Your task to perform on an android device: open wifi settings Image 0: 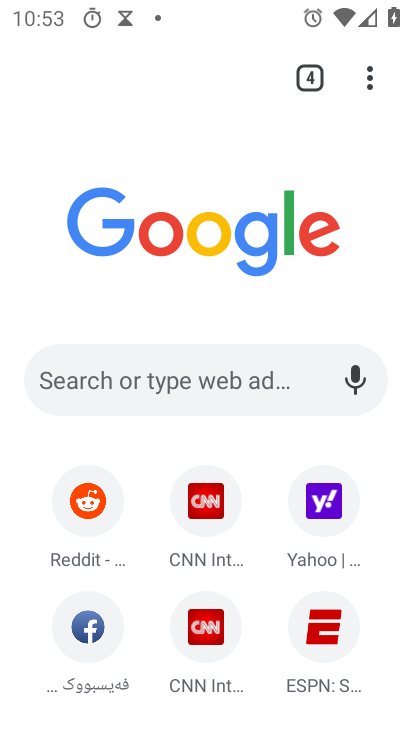
Step 0: press home button
Your task to perform on an android device: open wifi settings Image 1: 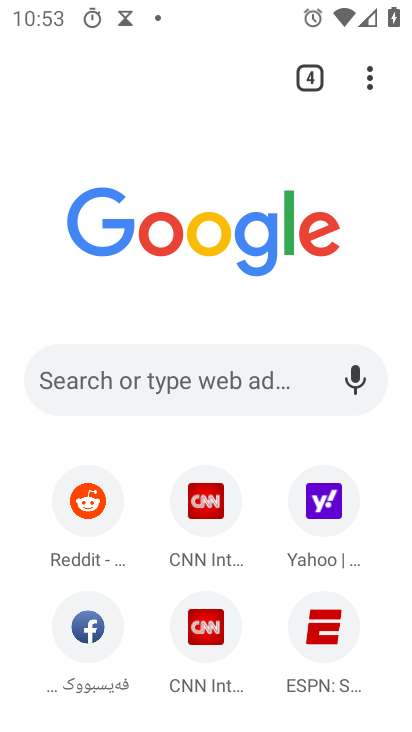
Step 1: press home button
Your task to perform on an android device: open wifi settings Image 2: 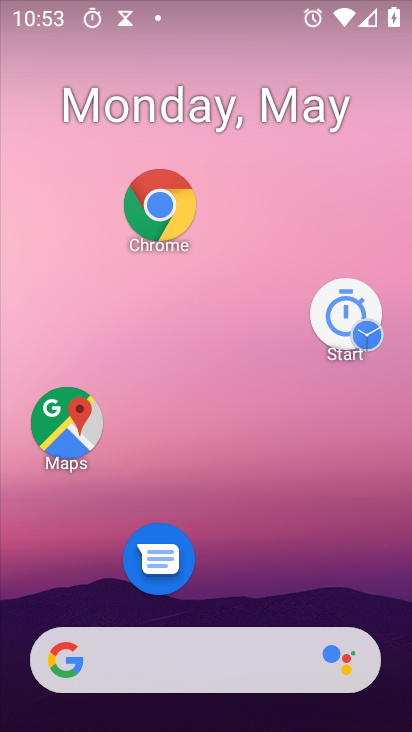
Step 2: press home button
Your task to perform on an android device: open wifi settings Image 3: 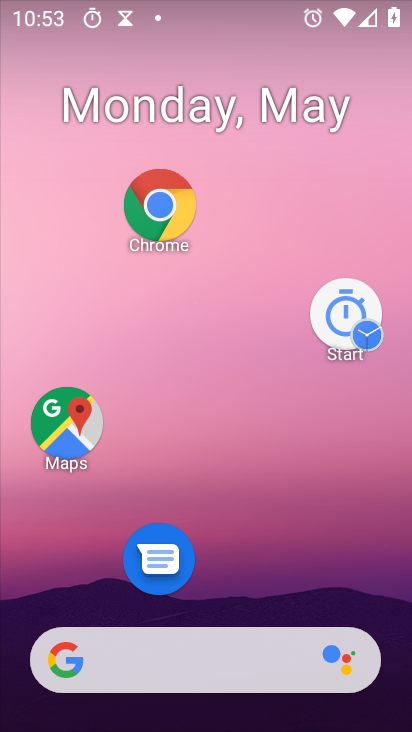
Step 3: drag from (244, 697) to (143, 123)
Your task to perform on an android device: open wifi settings Image 4: 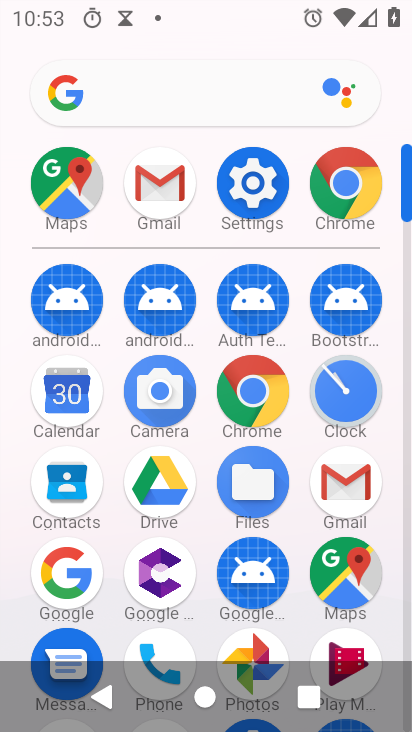
Step 4: click (263, 180)
Your task to perform on an android device: open wifi settings Image 5: 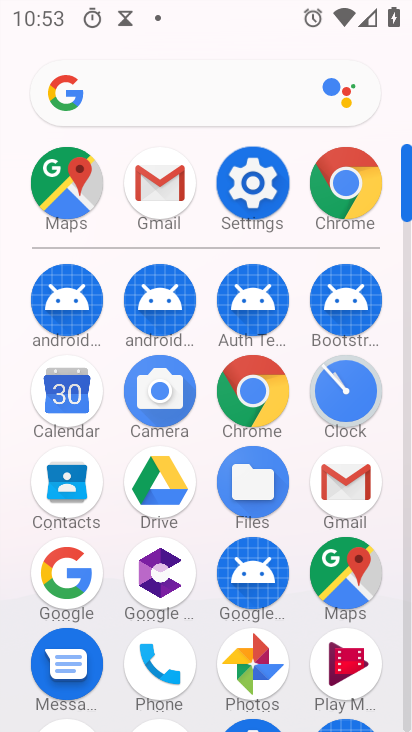
Step 5: click (263, 180)
Your task to perform on an android device: open wifi settings Image 6: 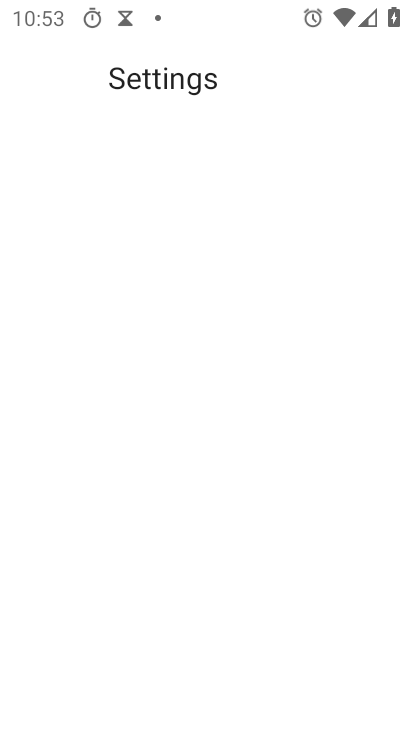
Step 6: click (262, 179)
Your task to perform on an android device: open wifi settings Image 7: 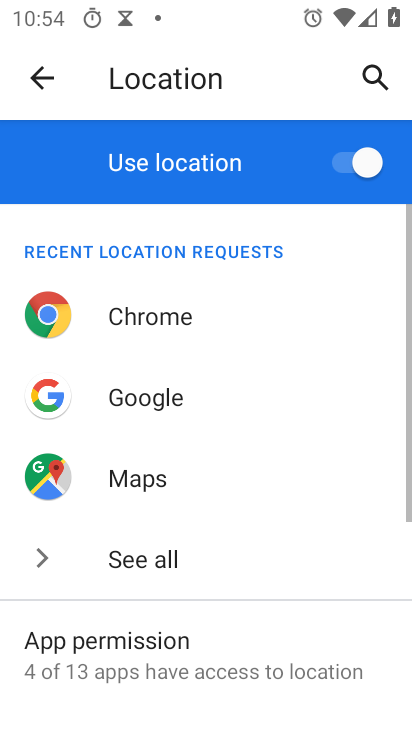
Step 7: click (43, 72)
Your task to perform on an android device: open wifi settings Image 8: 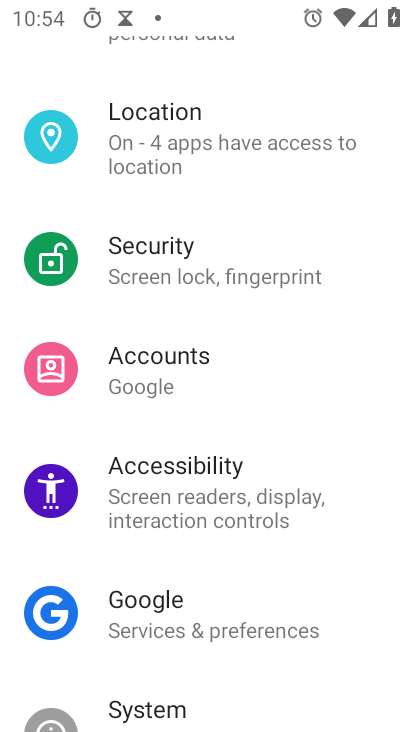
Step 8: drag from (236, 534) to (231, 495)
Your task to perform on an android device: open wifi settings Image 9: 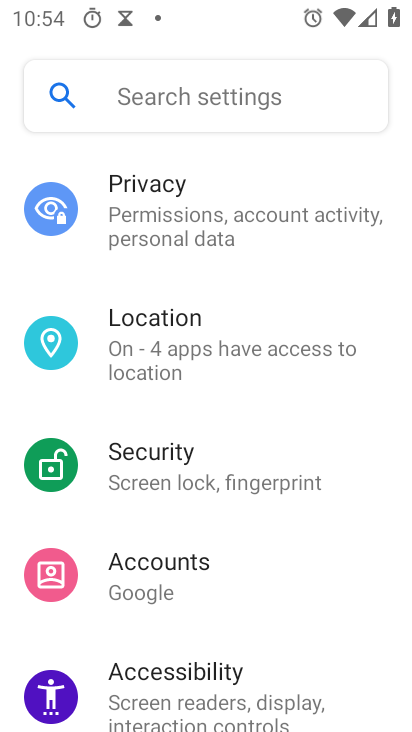
Step 9: drag from (111, 221) to (208, 619)
Your task to perform on an android device: open wifi settings Image 10: 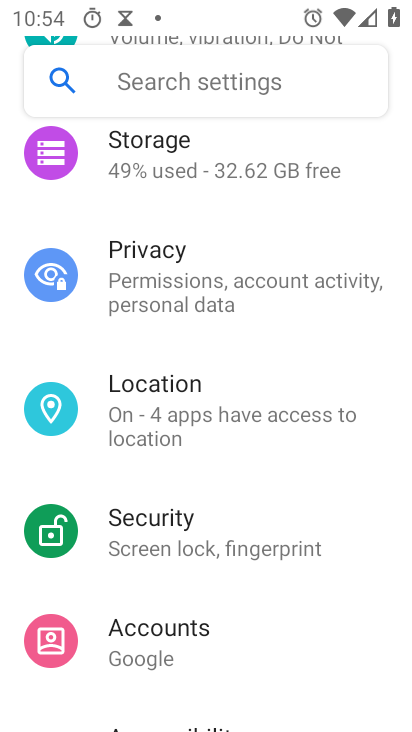
Step 10: drag from (237, 587) to (195, 635)
Your task to perform on an android device: open wifi settings Image 11: 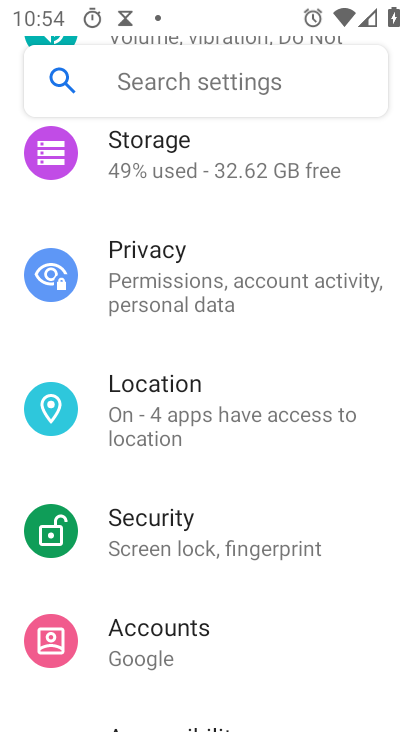
Step 11: drag from (169, 226) to (258, 641)
Your task to perform on an android device: open wifi settings Image 12: 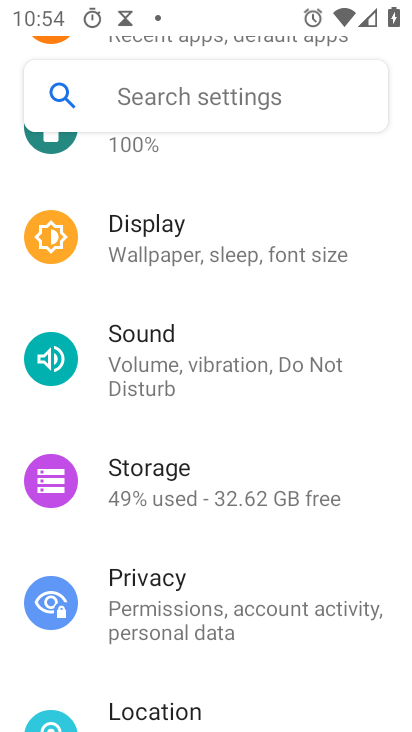
Step 12: drag from (247, 234) to (295, 706)
Your task to perform on an android device: open wifi settings Image 13: 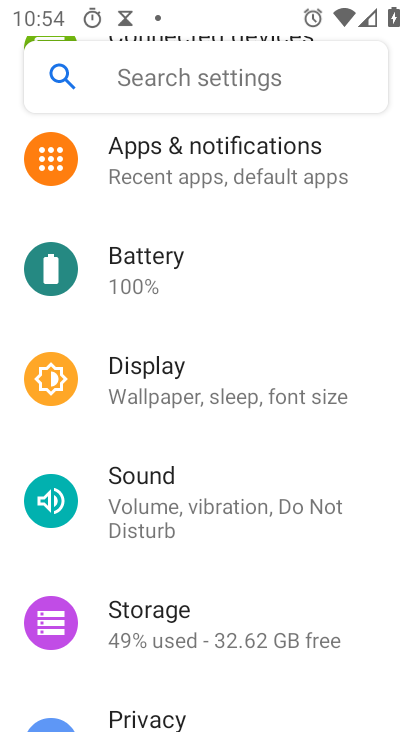
Step 13: drag from (195, 231) to (251, 537)
Your task to perform on an android device: open wifi settings Image 14: 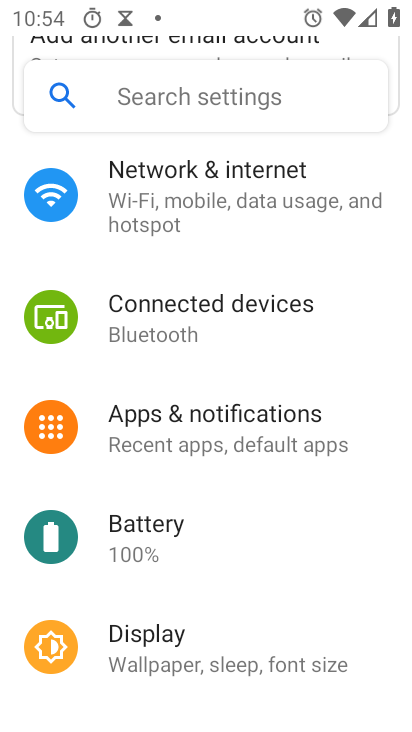
Step 14: drag from (226, 260) to (278, 569)
Your task to perform on an android device: open wifi settings Image 15: 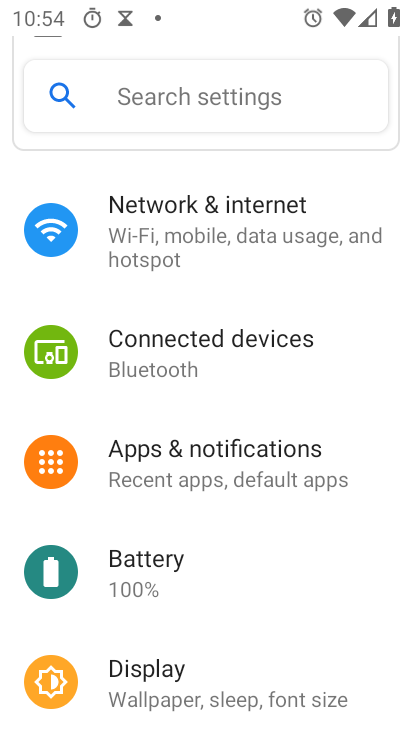
Step 15: click (242, 613)
Your task to perform on an android device: open wifi settings Image 16: 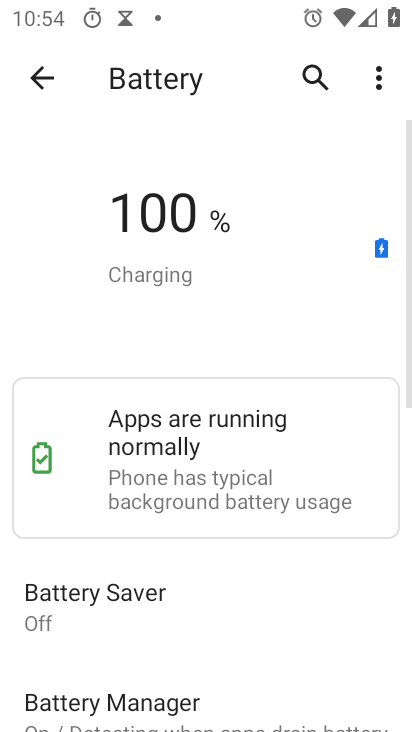
Step 16: click (60, 98)
Your task to perform on an android device: open wifi settings Image 17: 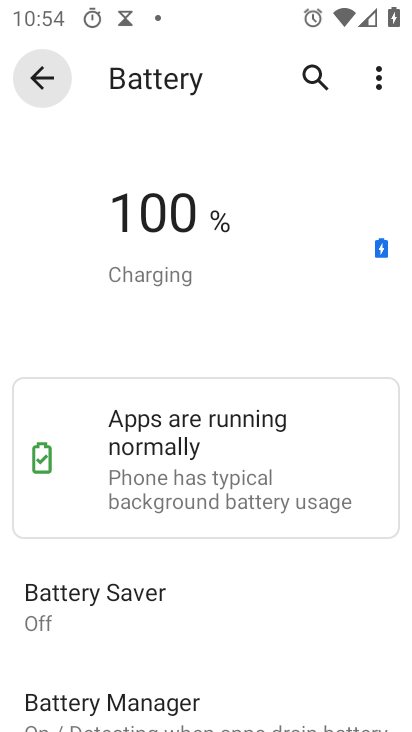
Step 17: click (60, 98)
Your task to perform on an android device: open wifi settings Image 18: 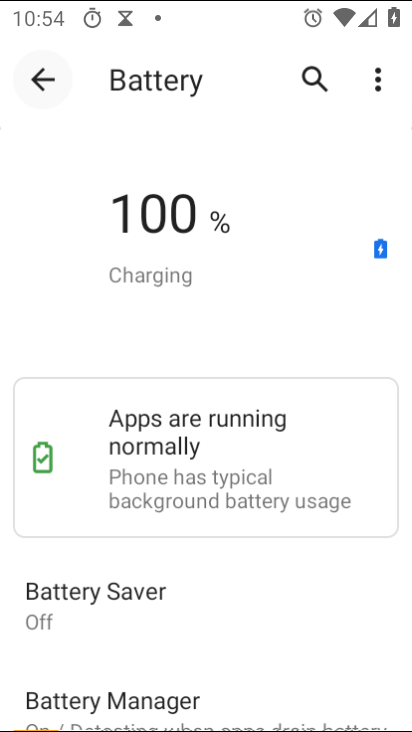
Step 18: click (60, 98)
Your task to perform on an android device: open wifi settings Image 19: 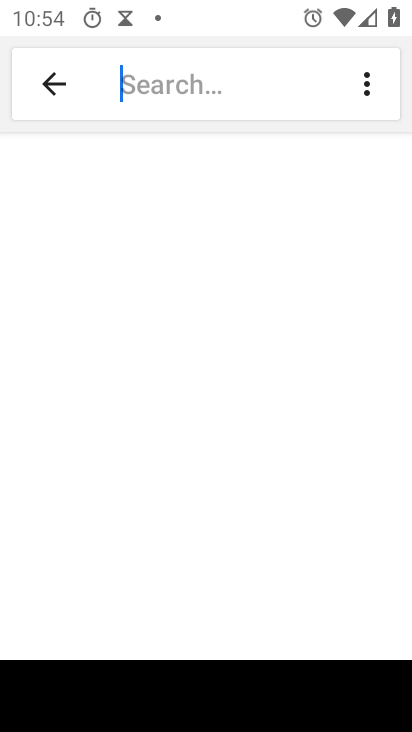
Step 19: click (55, 93)
Your task to perform on an android device: open wifi settings Image 20: 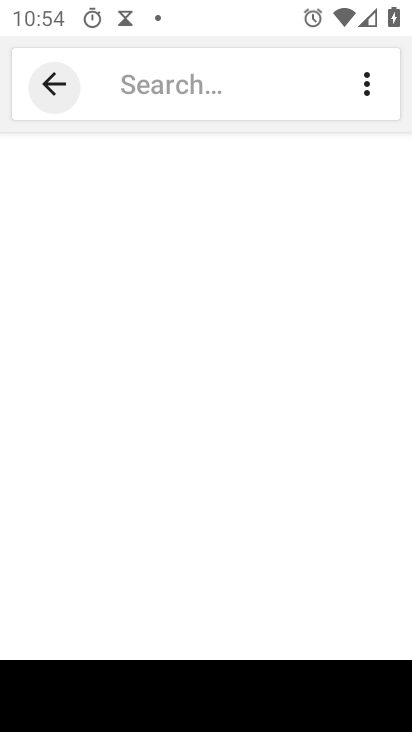
Step 20: click (58, 94)
Your task to perform on an android device: open wifi settings Image 21: 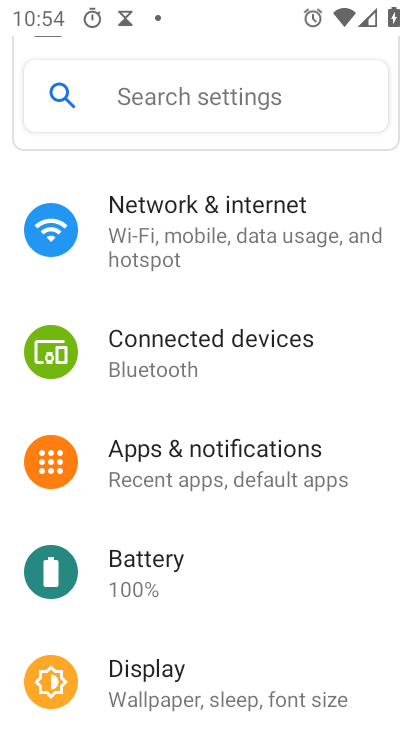
Step 21: click (207, 228)
Your task to perform on an android device: open wifi settings Image 22: 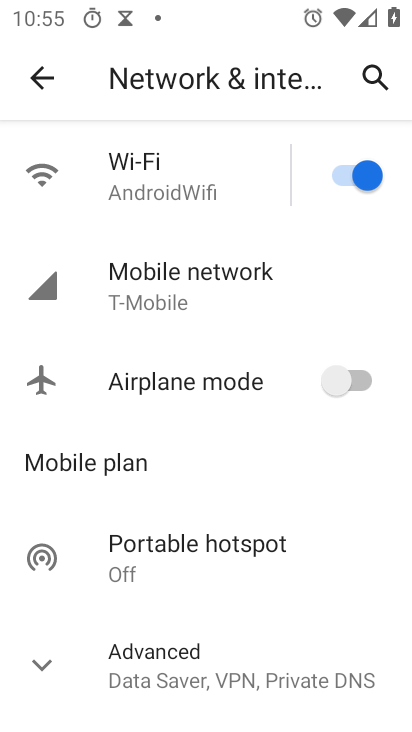
Step 22: click (41, 77)
Your task to perform on an android device: open wifi settings Image 23: 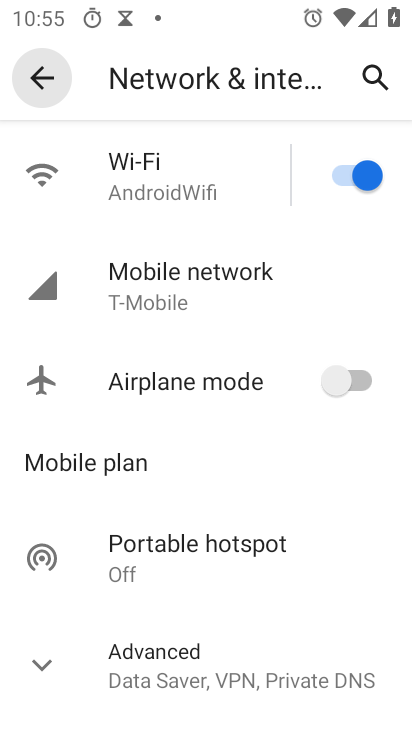
Step 23: click (44, 77)
Your task to perform on an android device: open wifi settings Image 24: 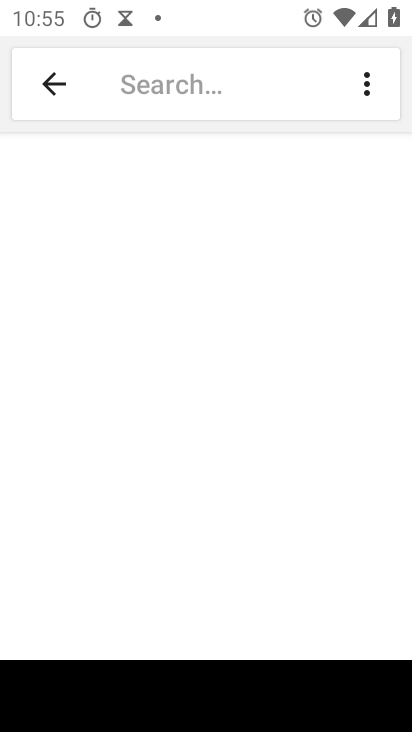
Step 24: click (67, 86)
Your task to perform on an android device: open wifi settings Image 25: 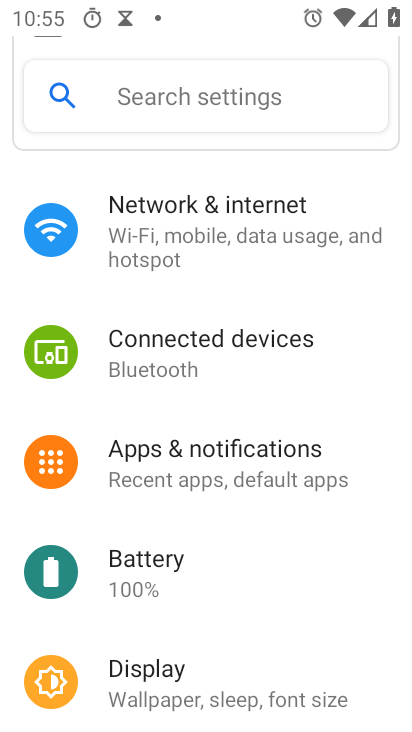
Step 25: click (200, 252)
Your task to perform on an android device: open wifi settings Image 26: 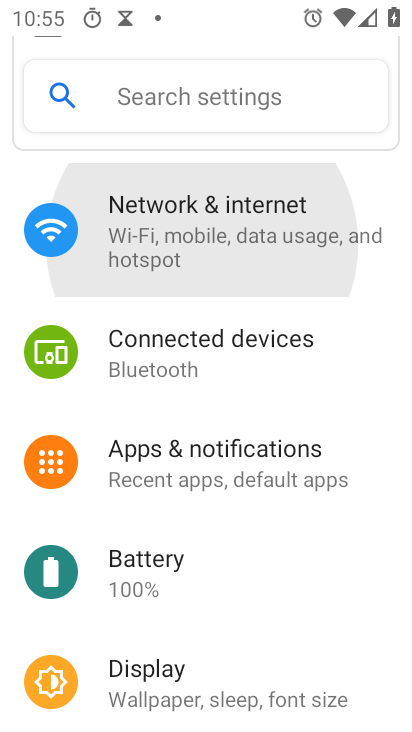
Step 26: click (199, 235)
Your task to perform on an android device: open wifi settings Image 27: 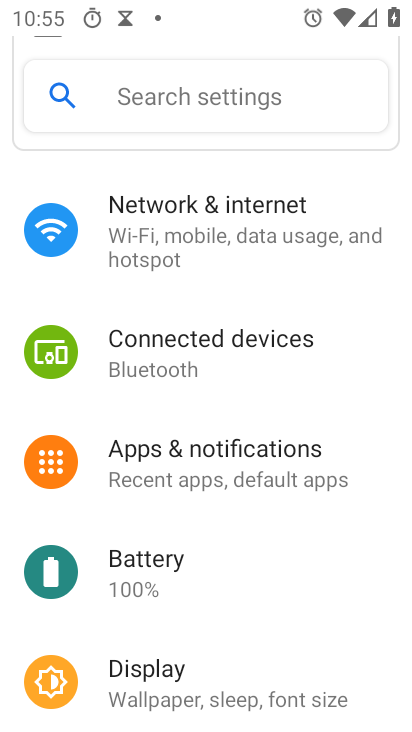
Step 27: click (198, 233)
Your task to perform on an android device: open wifi settings Image 28: 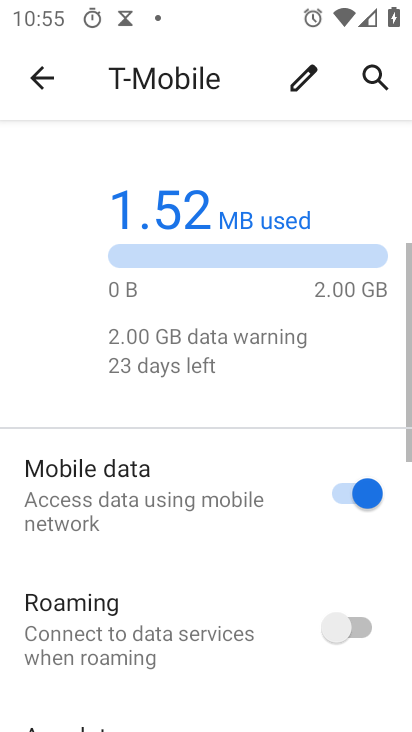
Step 28: task complete